Your task to perform on an android device: Search for macbook pro 15 inch on newegg.com, select the first entry, add it to the cart, then select checkout. Image 0: 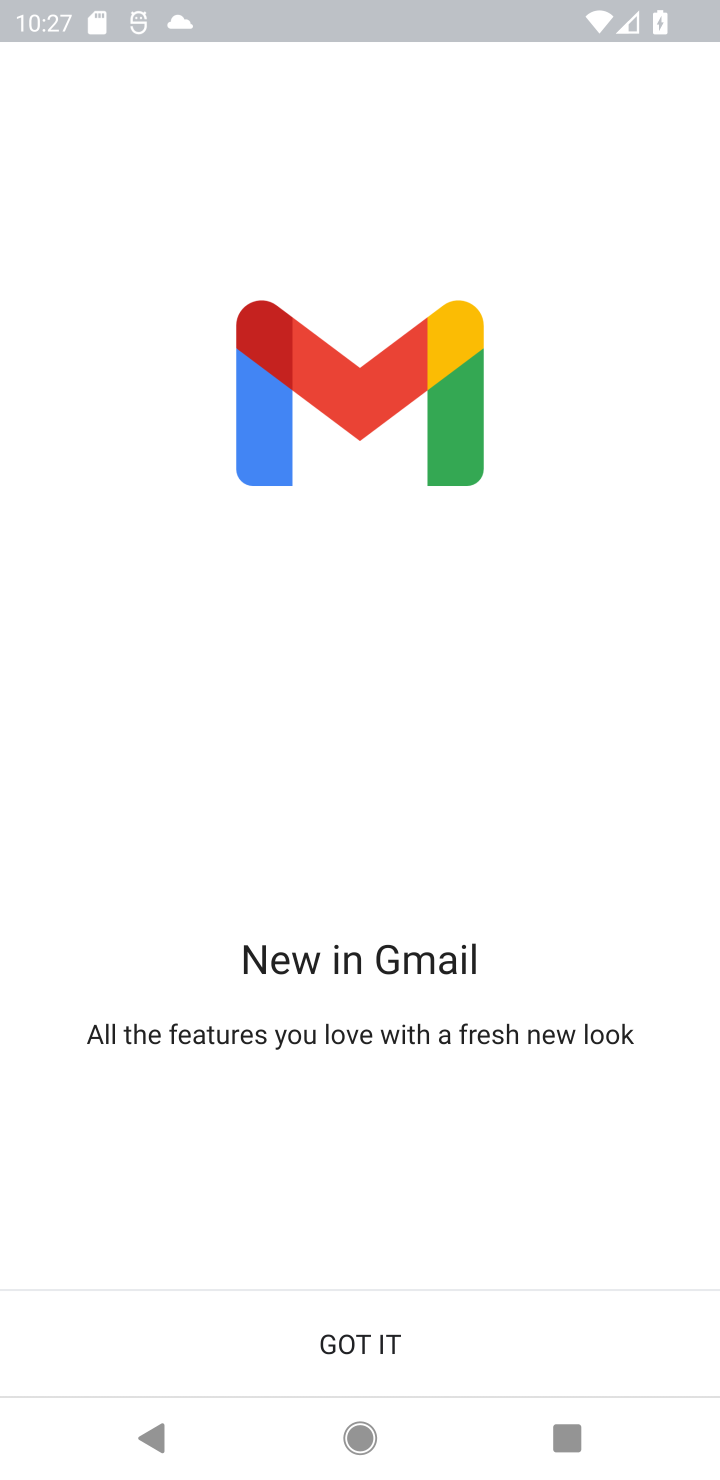
Step 0: press home button
Your task to perform on an android device: Search for macbook pro 15 inch on newegg.com, select the first entry, add it to the cart, then select checkout. Image 1: 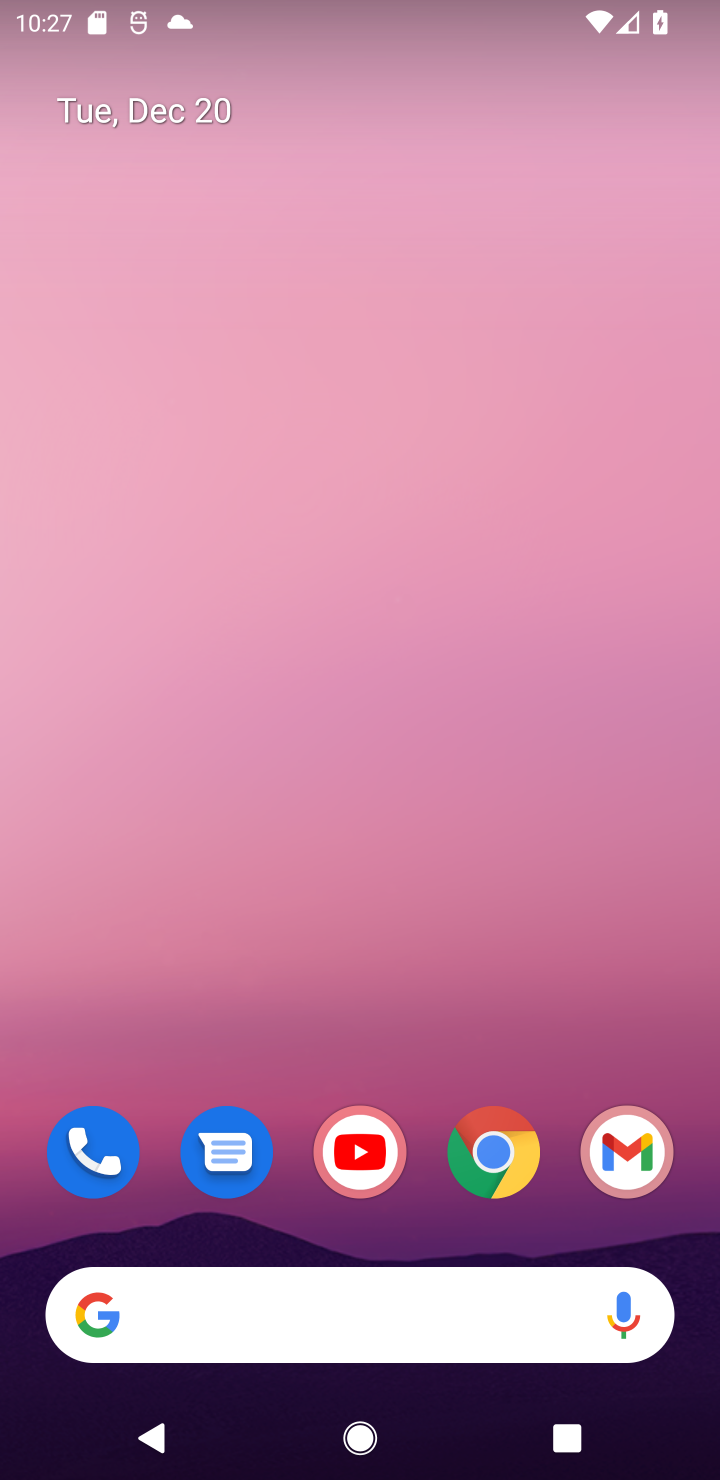
Step 1: click (499, 1175)
Your task to perform on an android device: Search for macbook pro 15 inch on newegg.com, select the first entry, add it to the cart, then select checkout. Image 2: 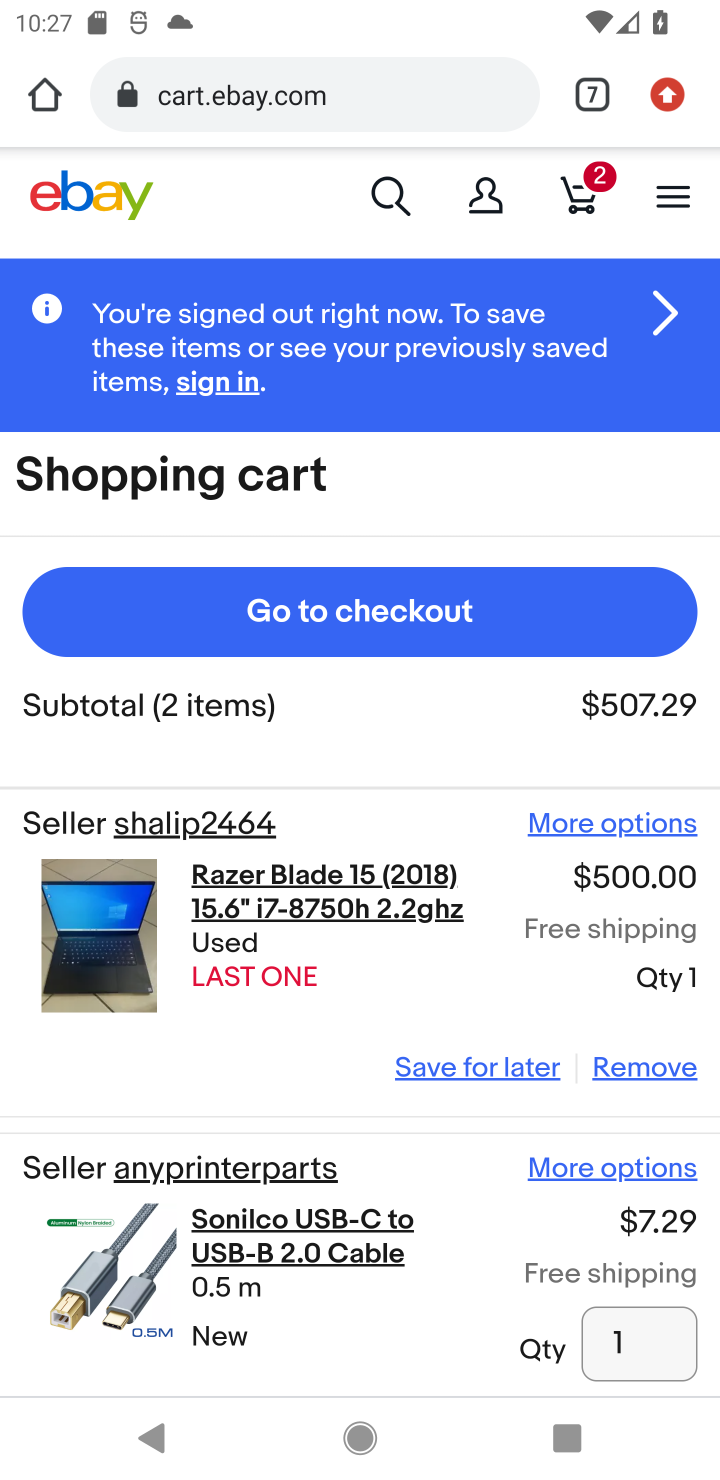
Step 2: click (595, 86)
Your task to perform on an android device: Search for macbook pro 15 inch on newegg.com, select the first entry, add it to the cart, then select checkout. Image 3: 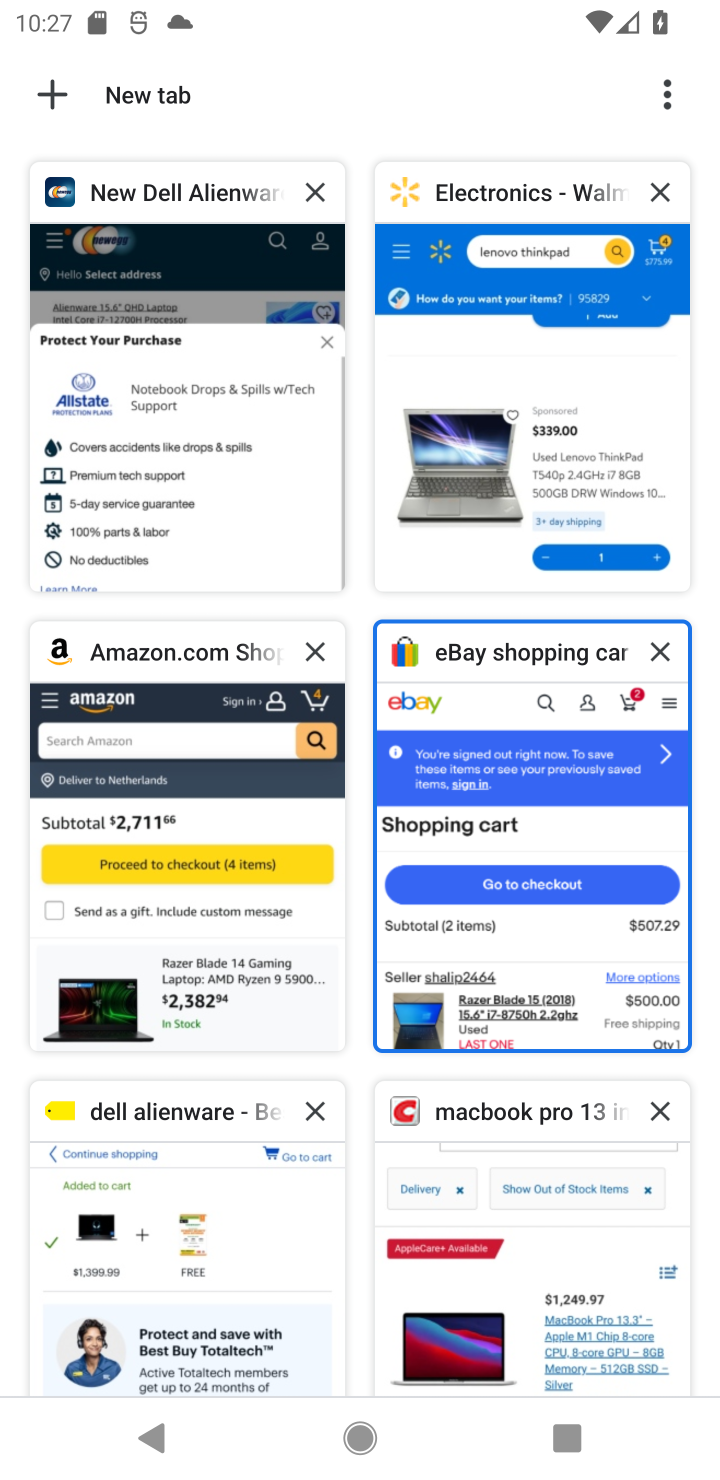
Step 3: click (247, 466)
Your task to perform on an android device: Search for macbook pro 15 inch on newegg.com, select the first entry, add it to the cart, then select checkout. Image 4: 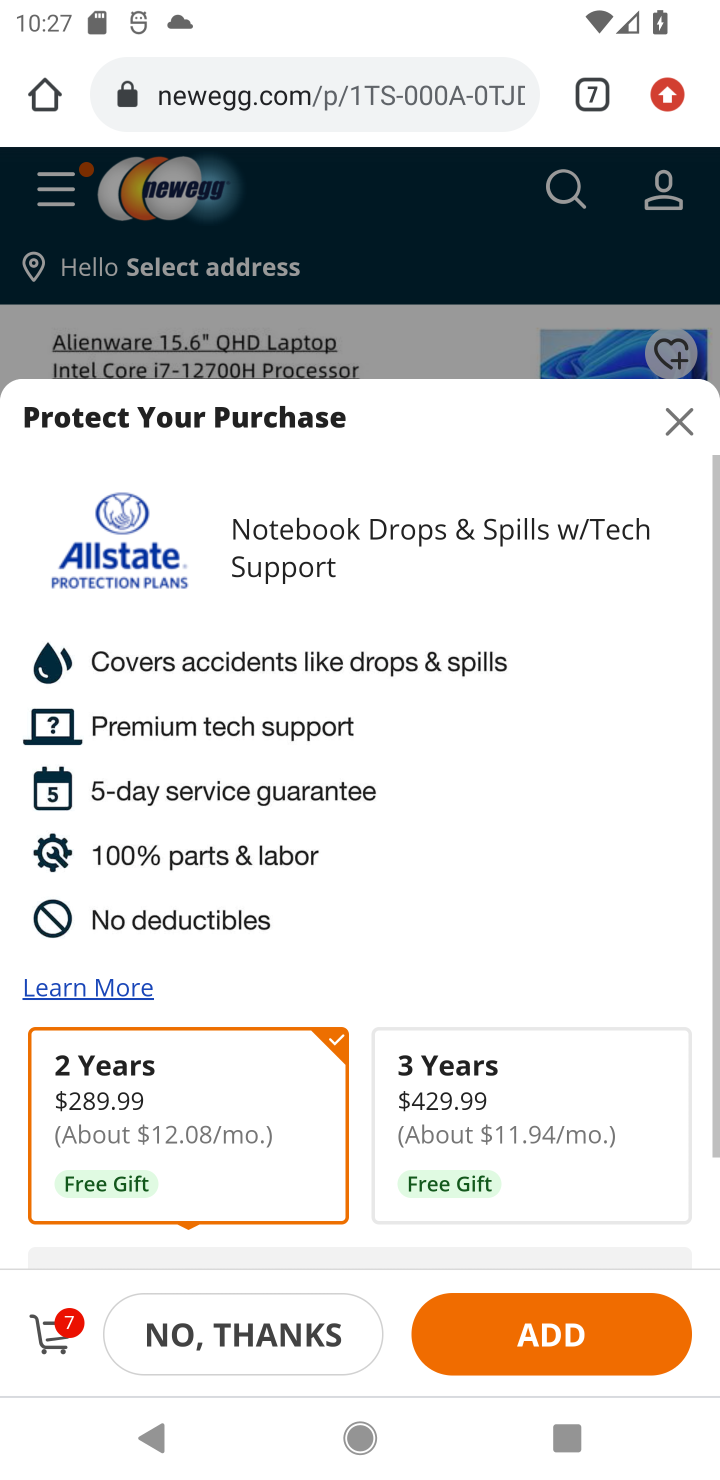
Step 4: click (695, 429)
Your task to perform on an android device: Search for macbook pro 15 inch on newegg.com, select the first entry, add it to the cart, then select checkout. Image 5: 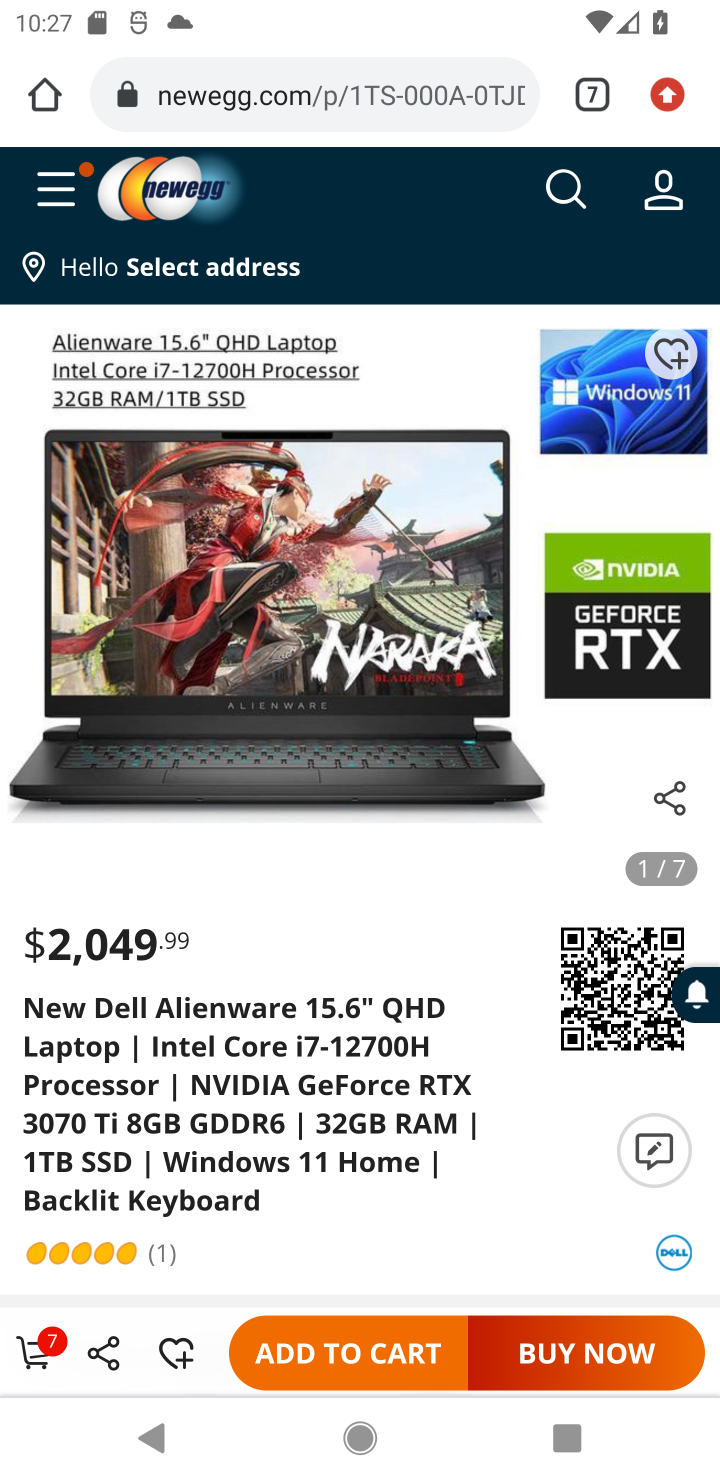
Step 5: click (568, 196)
Your task to perform on an android device: Search for macbook pro 15 inch on newegg.com, select the first entry, add it to the cart, then select checkout. Image 6: 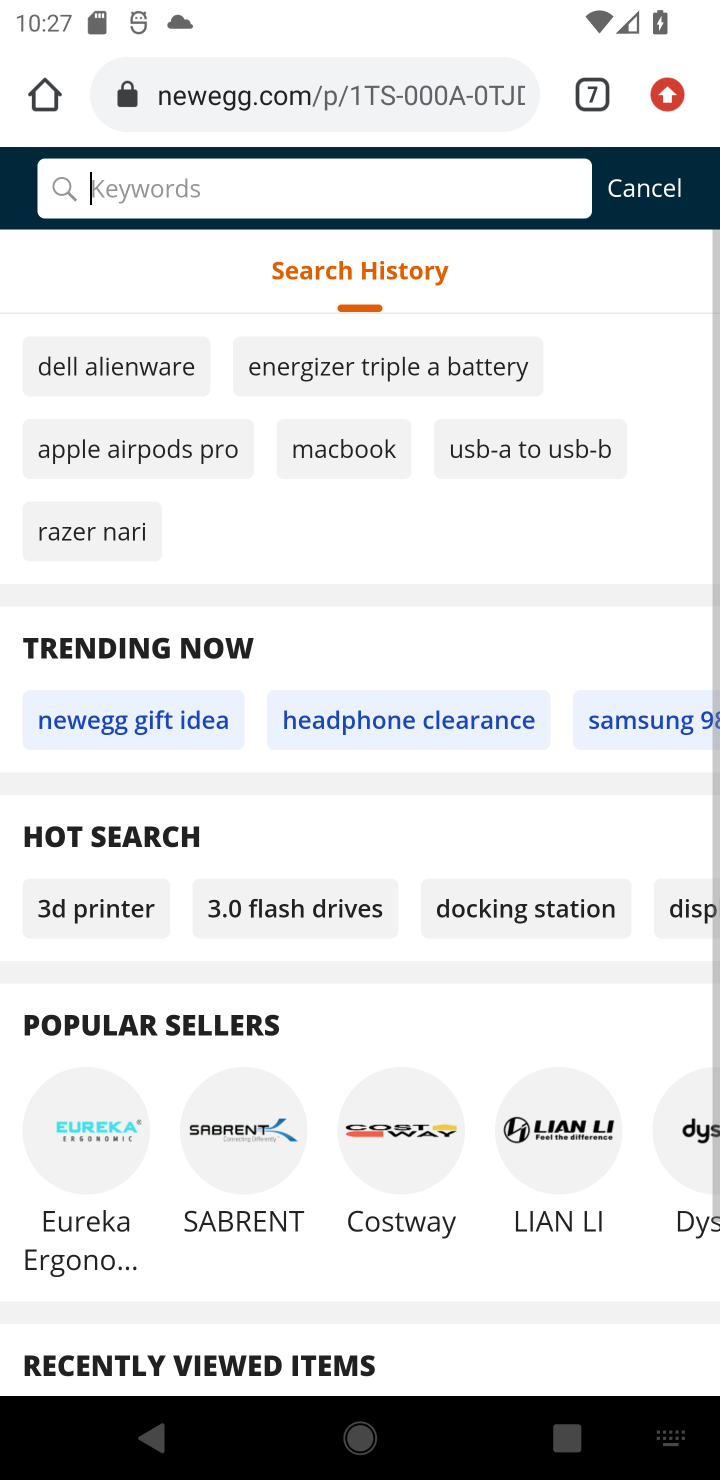
Step 6: type "macbook pro 15 inch"
Your task to perform on an android device: Search for macbook pro 15 inch on newegg.com, select the first entry, add it to the cart, then select checkout. Image 7: 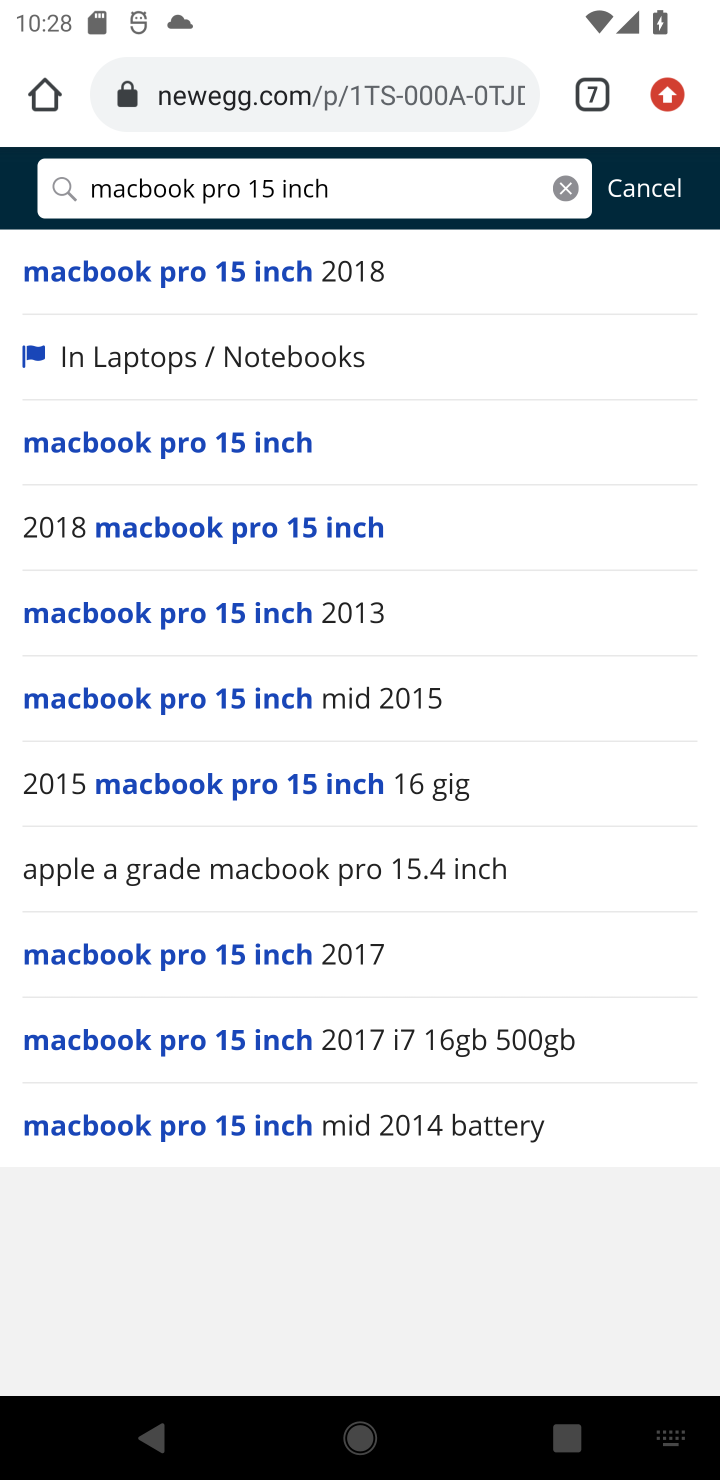
Step 7: click (95, 447)
Your task to perform on an android device: Search for macbook pro 15 inch on newegg.com, select the first entry, add it to the cart, then select checkout. Image 8: 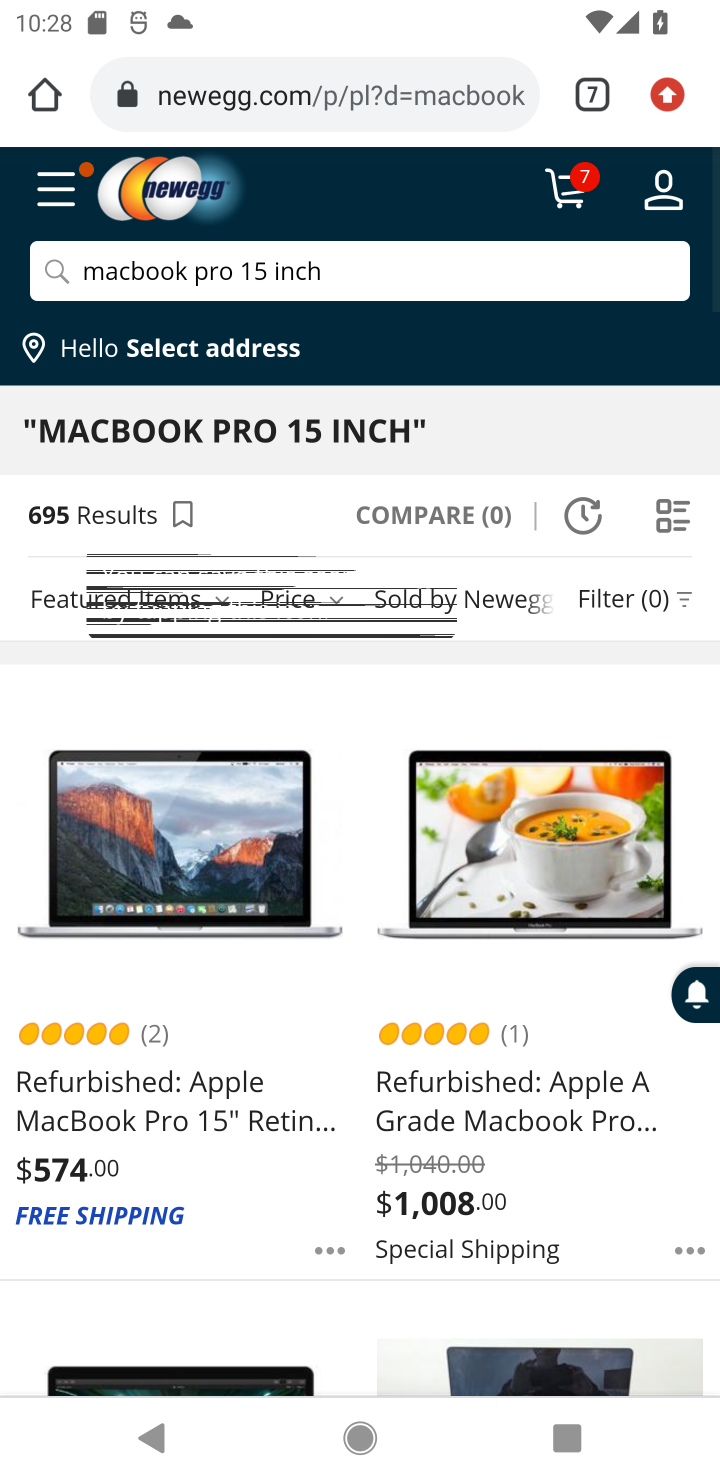
Step 8: click (202, 1120)
Your task to perform on an android device: Search for macbook pro 15 inch on newegg.com, select the first entry, add it to the cart, then select checkout. Image 9: 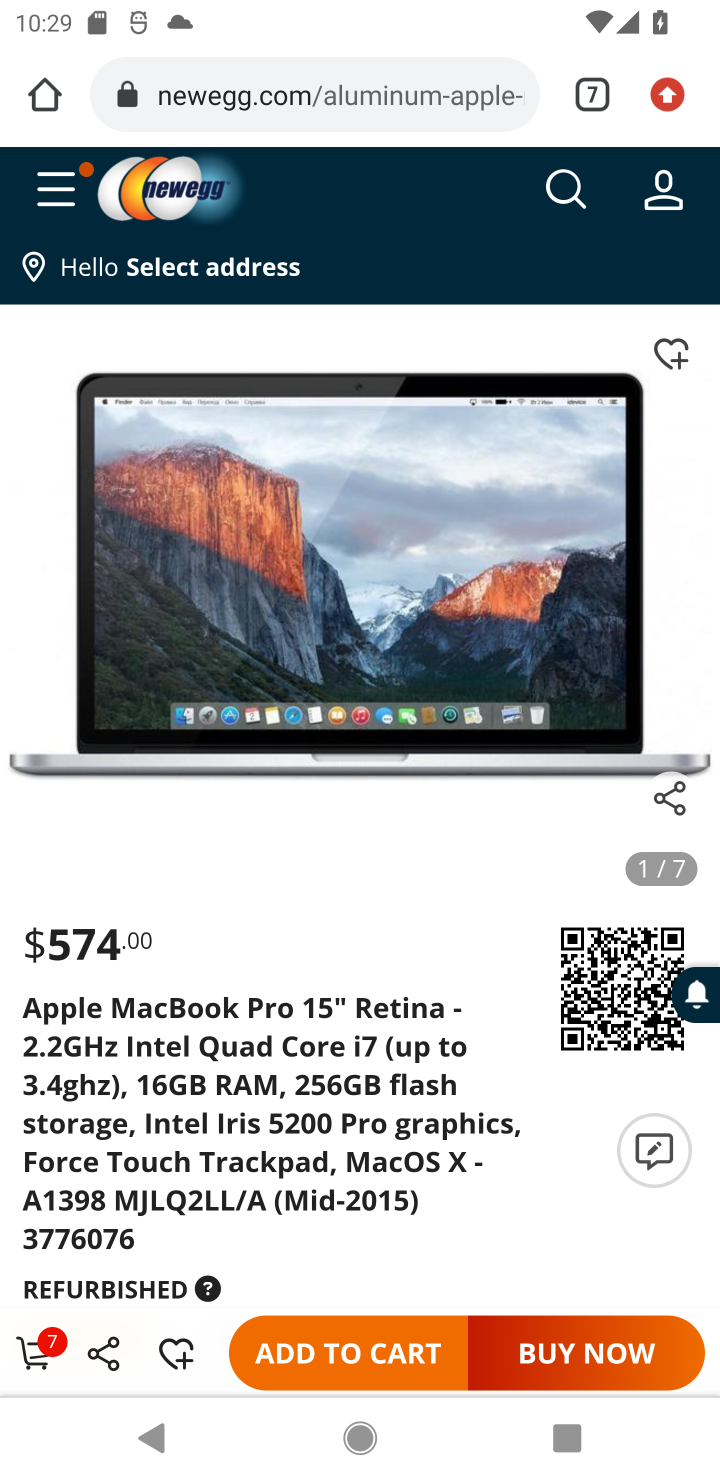
Step 9: click (362, 1365)
Your task to perform on an android device: Search for macbook pro 15 inch on newegg.com, select the first entry, add it to the cart, then select checkout. Image 10: 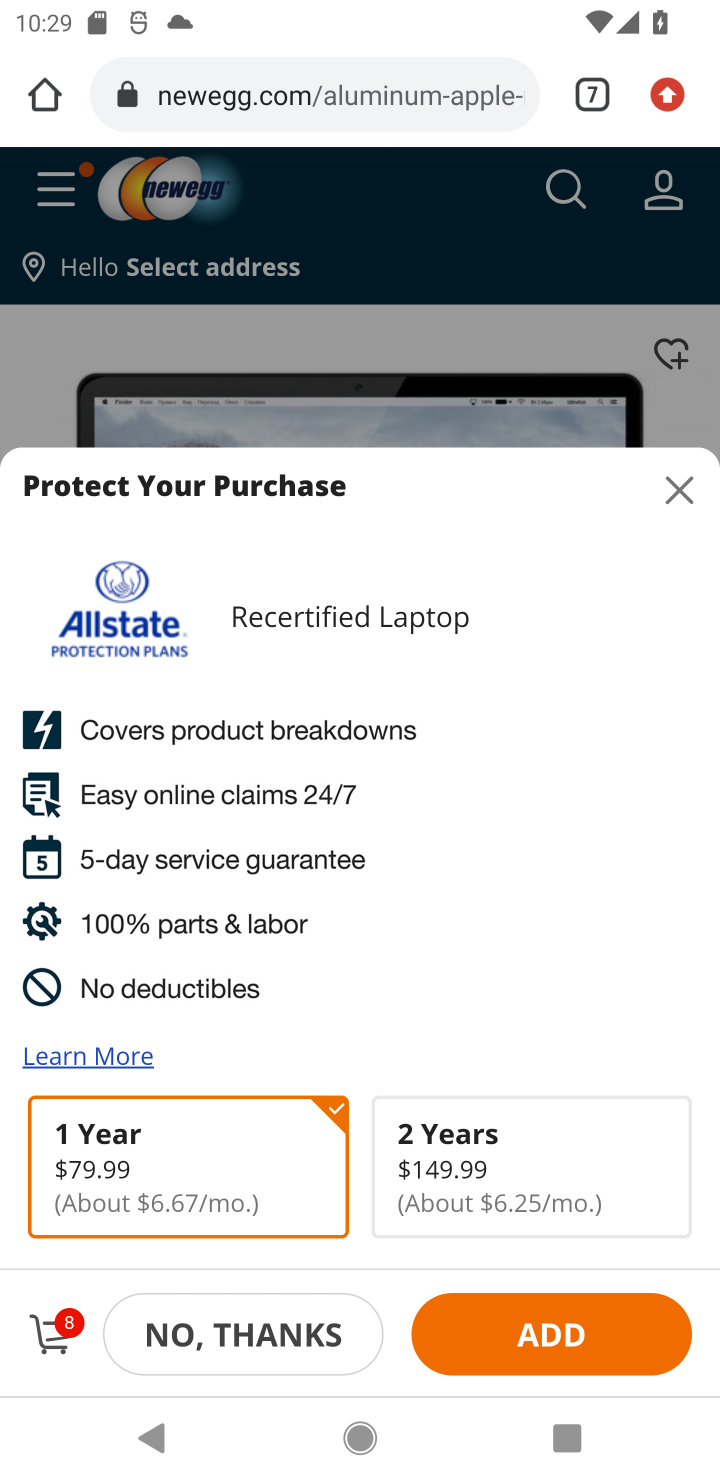
Step 10: click (679, 492)
Your task to perform on an android device: Search for macbook pro 15 inch on newegg.com, select the first entry, add it to the cart, then select checkout. Image 11: 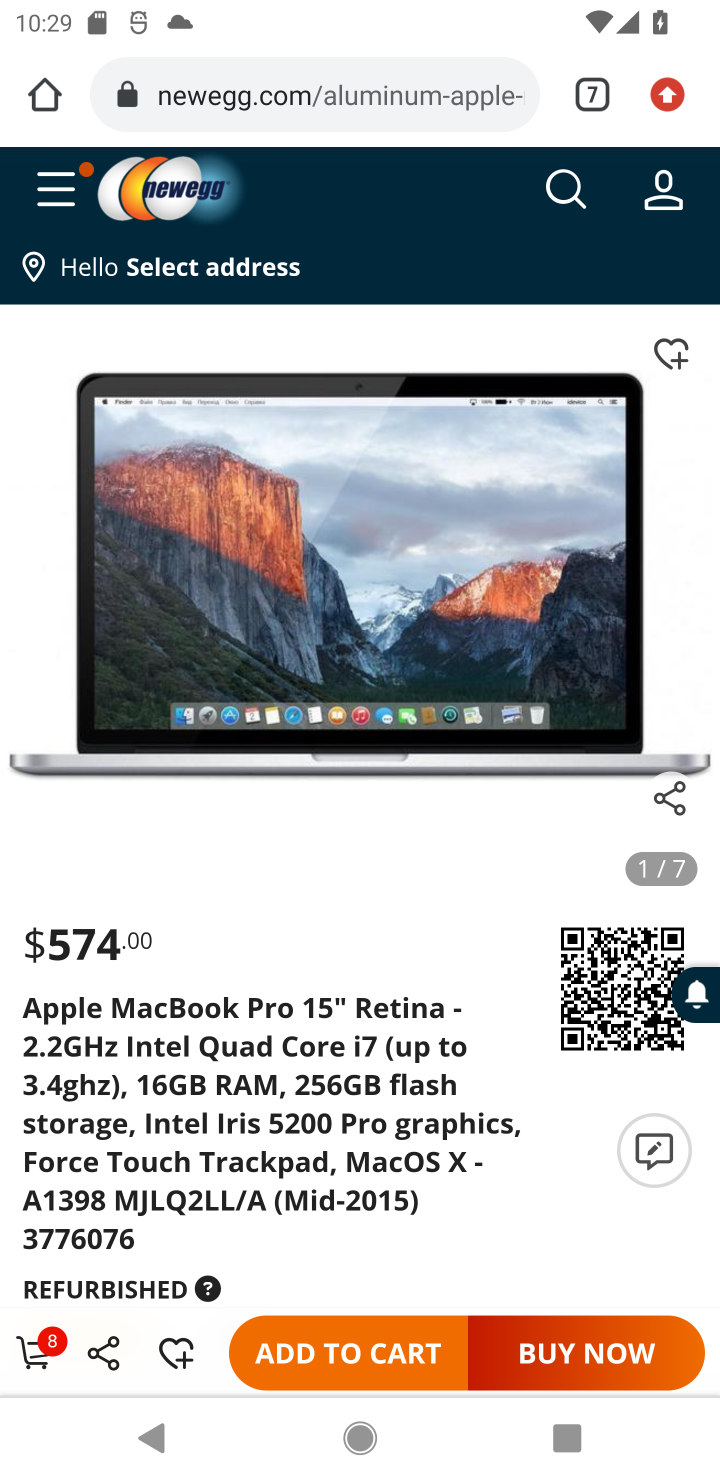
Step 11: task complete